Your task to perform on an android device: check out phone information Image 0: 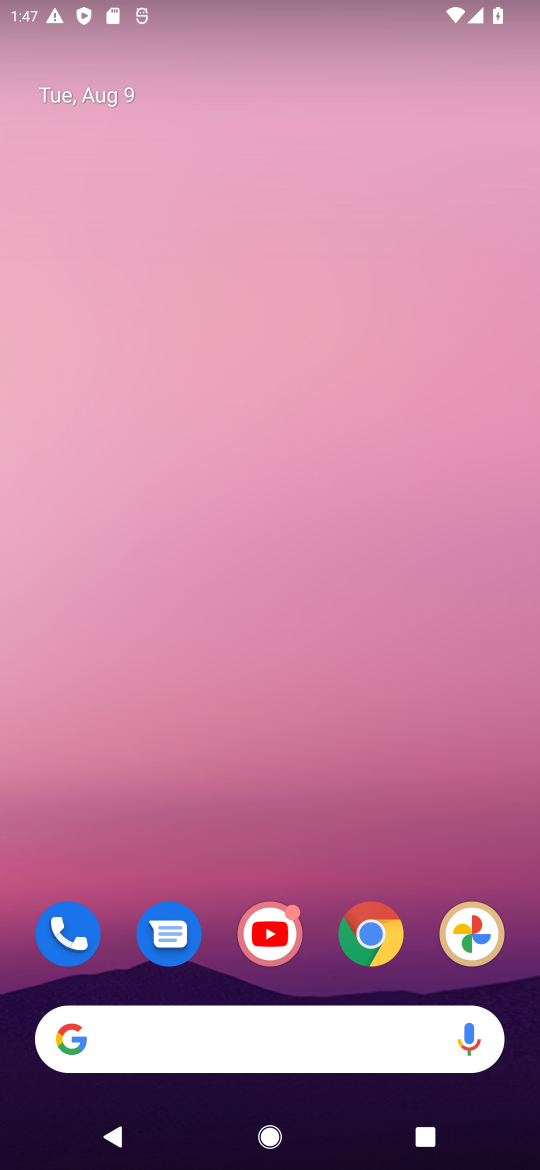
Step 0: click (455, 921)
Your task to perform on an android device: check out phone information Image 1: 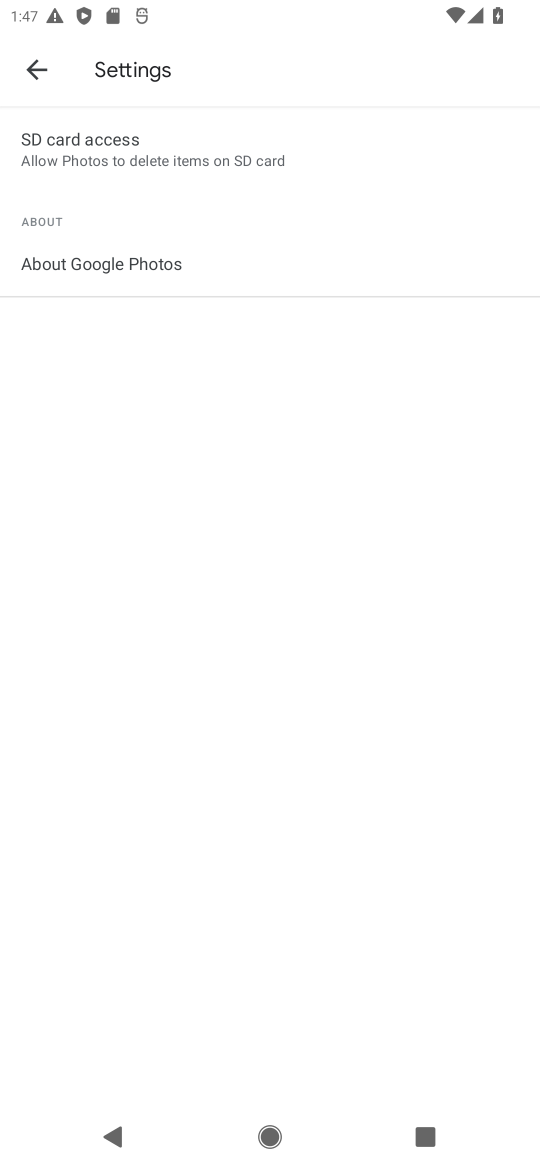
Step 1: press home button
Your task to perform on an android device: check out phone information Image 2: 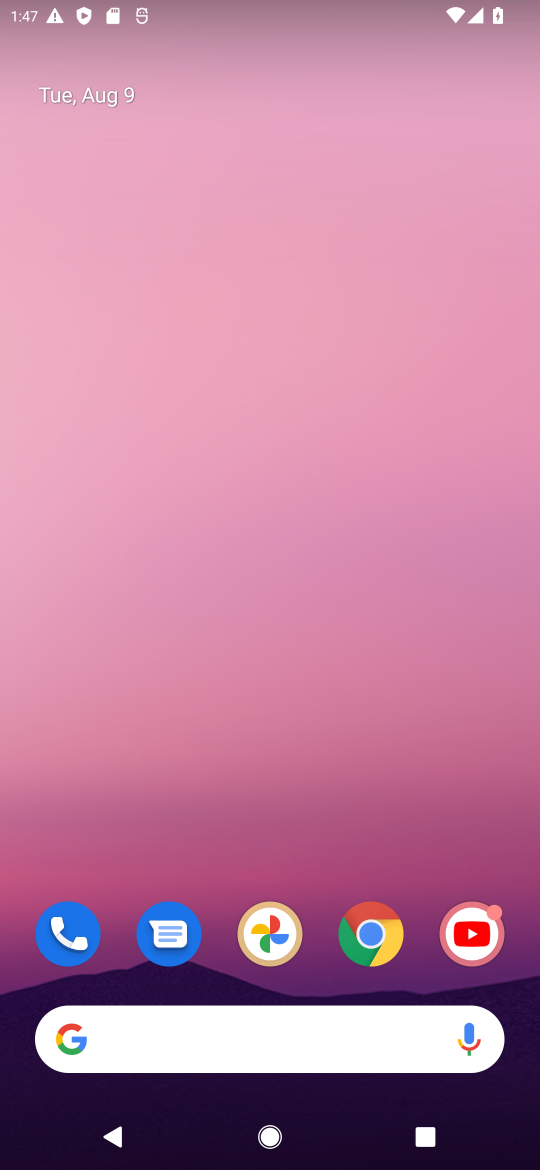
Step 2: drag from (311, 974) to (485, 204)
Your task to perform on an android device: check out phone information Image 3: 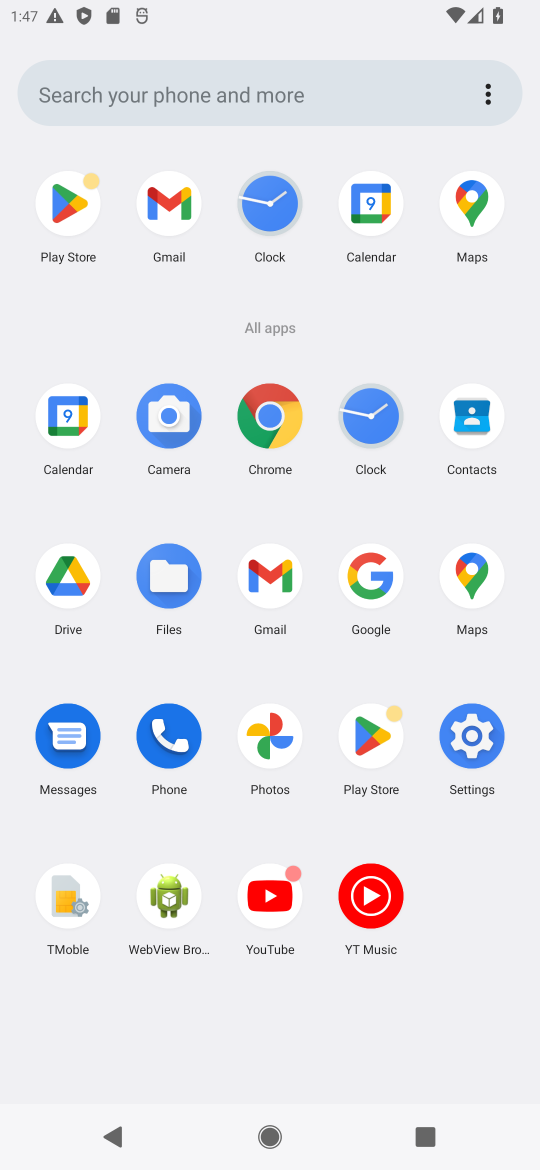
Step 3: click (470, 765)
Your task to perform on an android device: check out phone information Image 4: 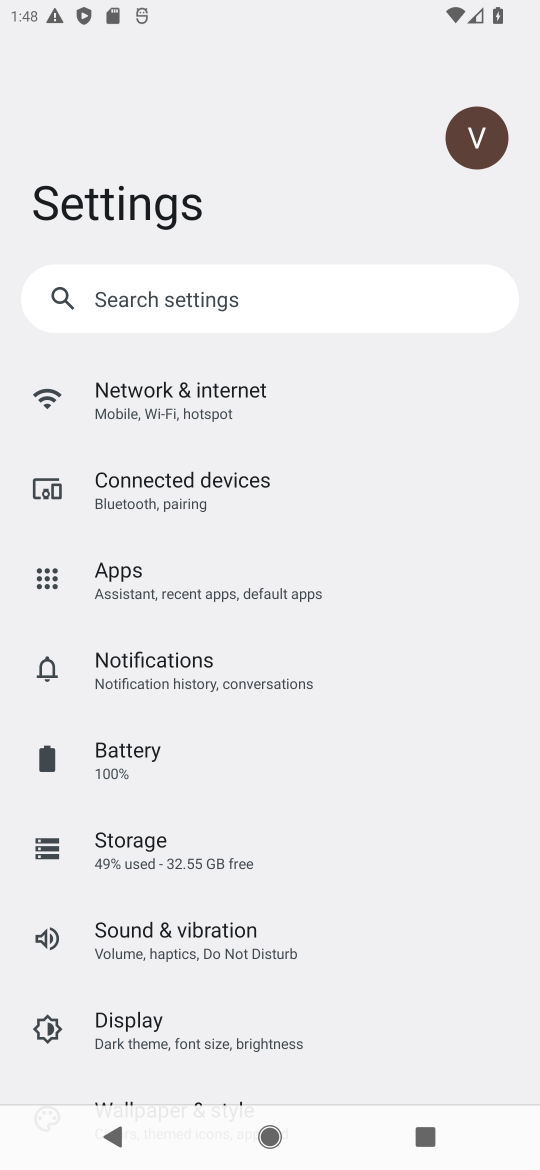
Step 4: task complete